Your task to perform on an android device: open device folders in google photos Image 0: 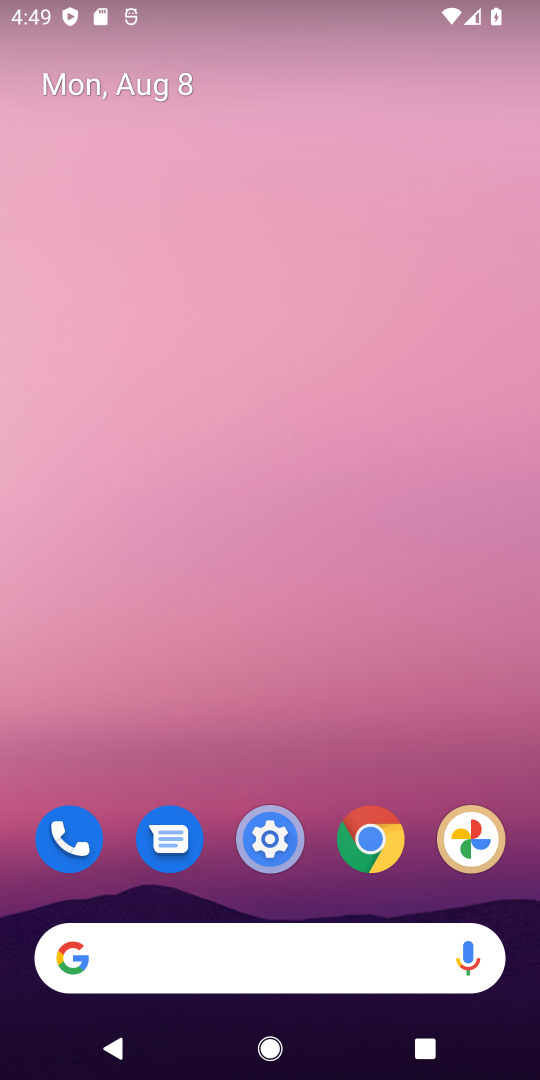
Step 0: drag from (238, 833) to (258, 132)
Your task to perform on an android device: open device folders in google photos Image 1: 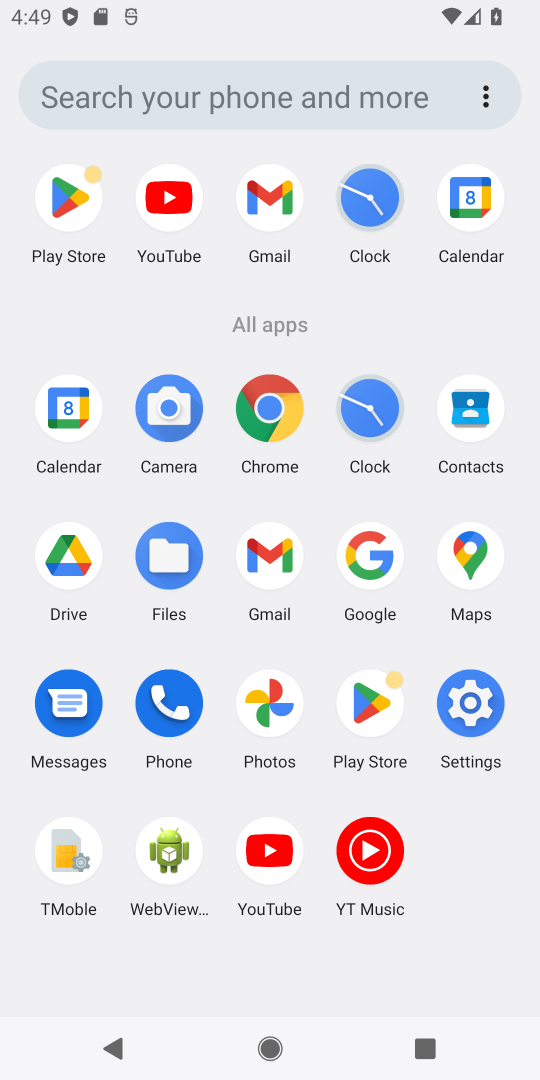
Step 1: click (285, 741)
Your task to perform on an android device: open device folders in google photos Image 2: 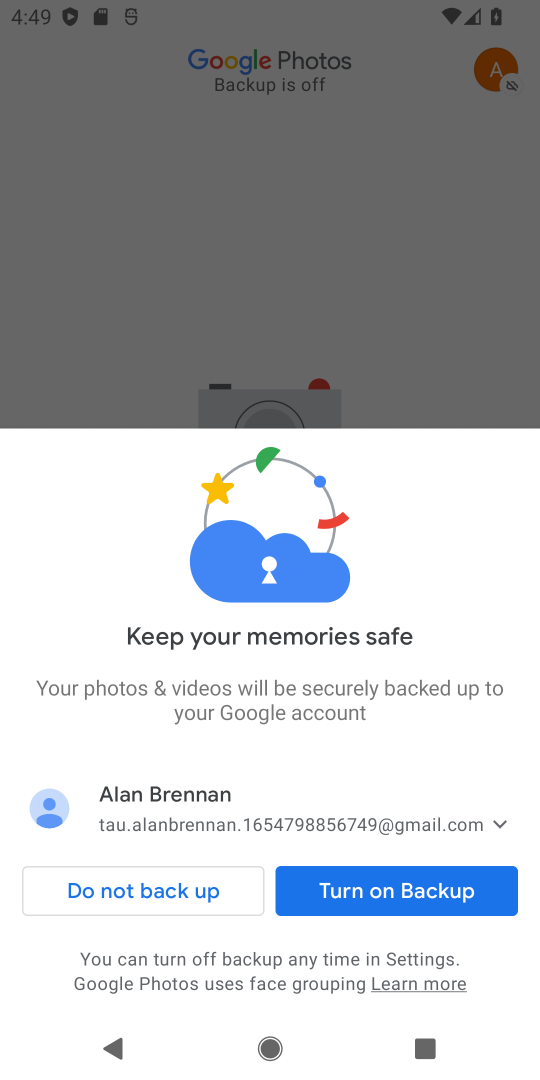
Step 2: click (143, 898)
Your task to perform on an android device: open device folders in google photos Image 3: 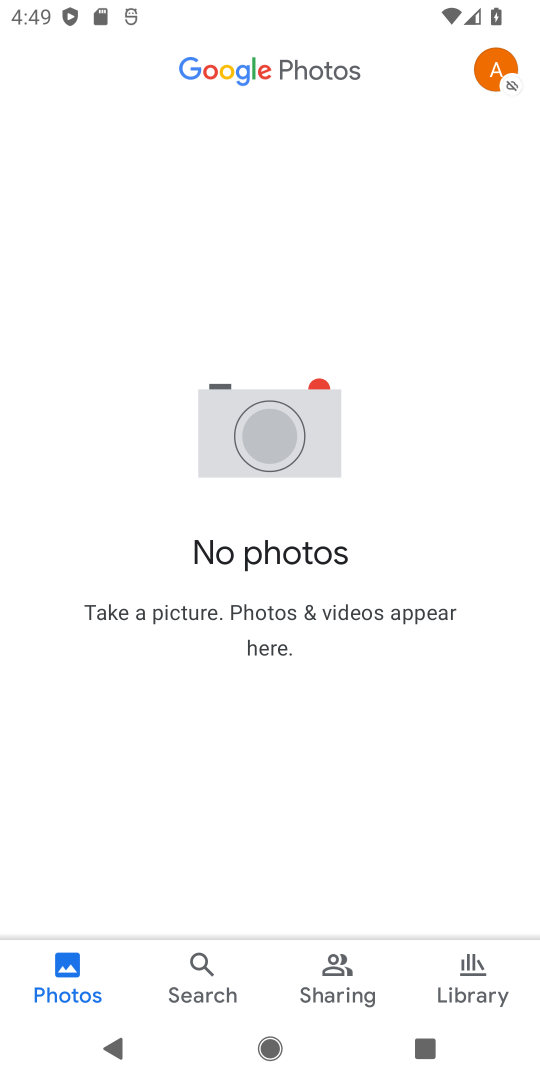
Step 3: drag from (259, 363) to (280, 619)
Your task to perform on an android device: open device folders in google photos Image 4: 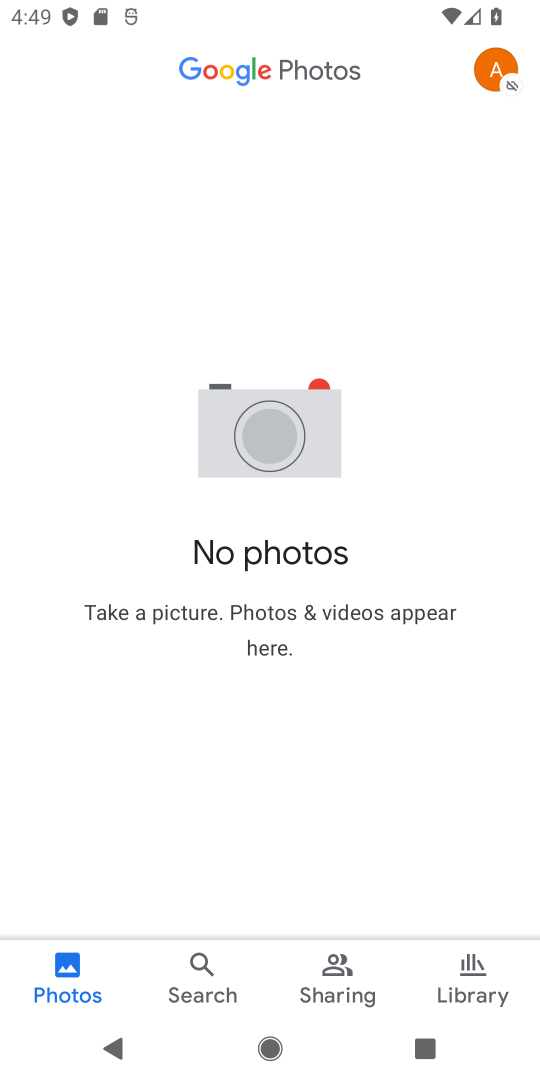
Step 4: click (469, 982)
Your task to perform on an android device: open device folders in google photos Image 5: 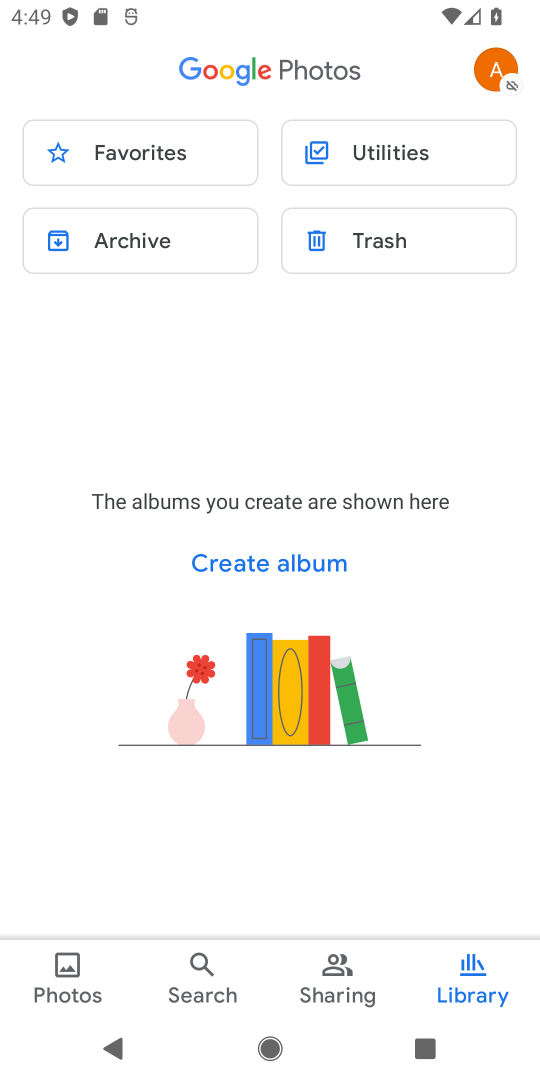
Step 5: task complete